Your task to perform on an android device: open the mobile data screen to see how much data has been used Image 0: 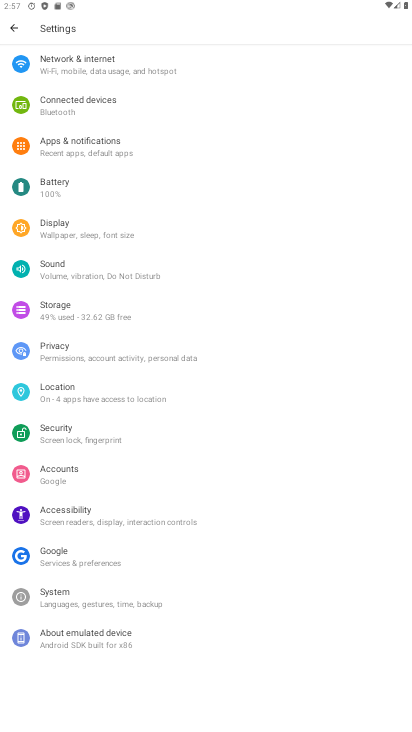
Step 0: click (79, 55)
Your task to perform on an android device: open the mobile data screen to see how much data has been used Image 1: 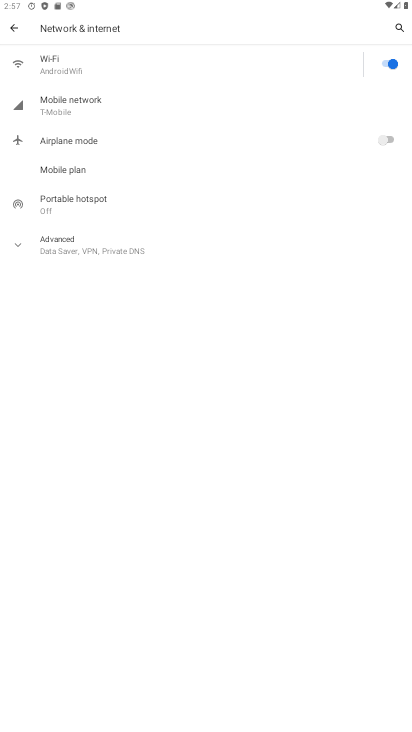
Step 1: click (80, 108)
Your task to perform on an android device: open the mobile data screen to see how much data has been used Image 2: 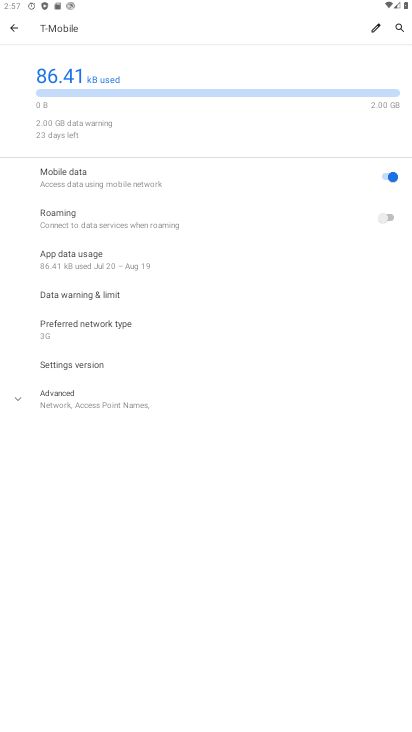
Step 2: task complete